Your task to perform on an android device: Search for a nice rug on Crate & Barrel Image 0: 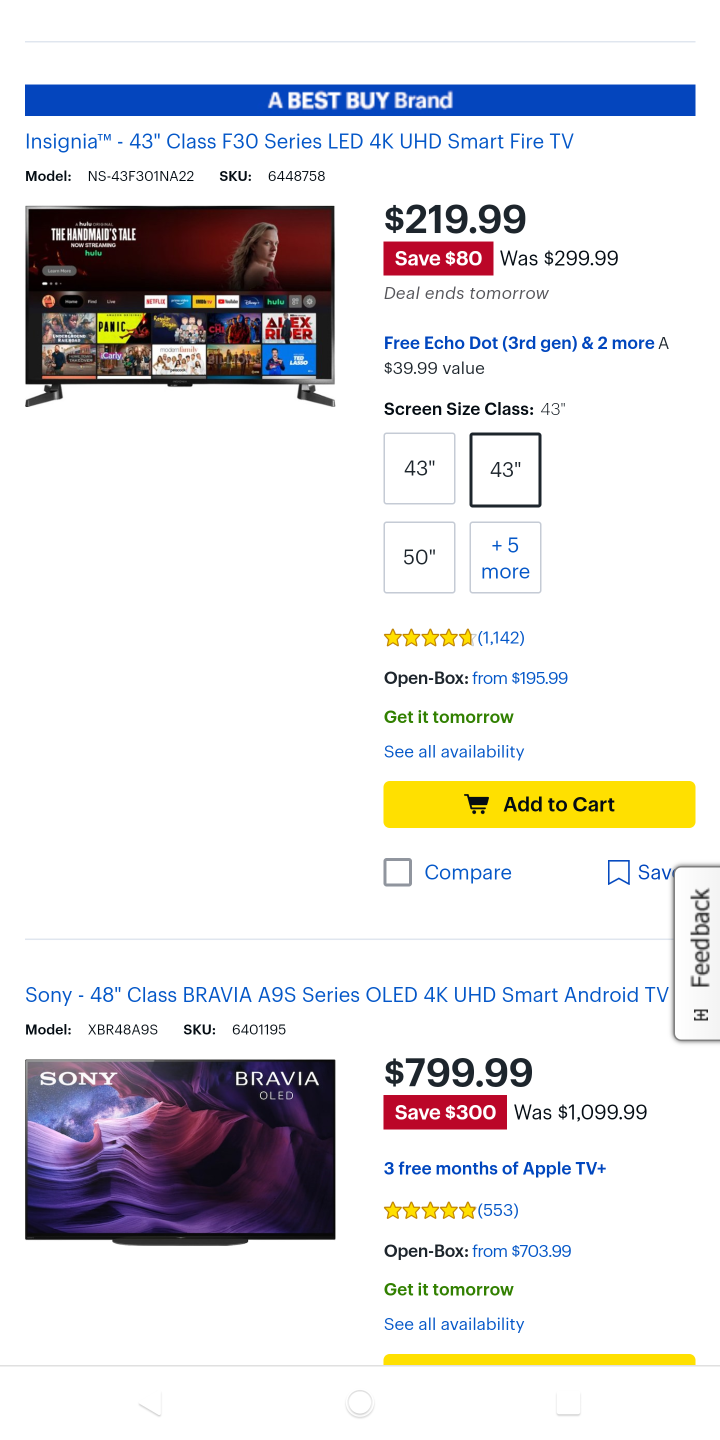
Step 0: press home button
Your task to perform on an android device: Search for a nice rug on Crate & Barrel Image 1: 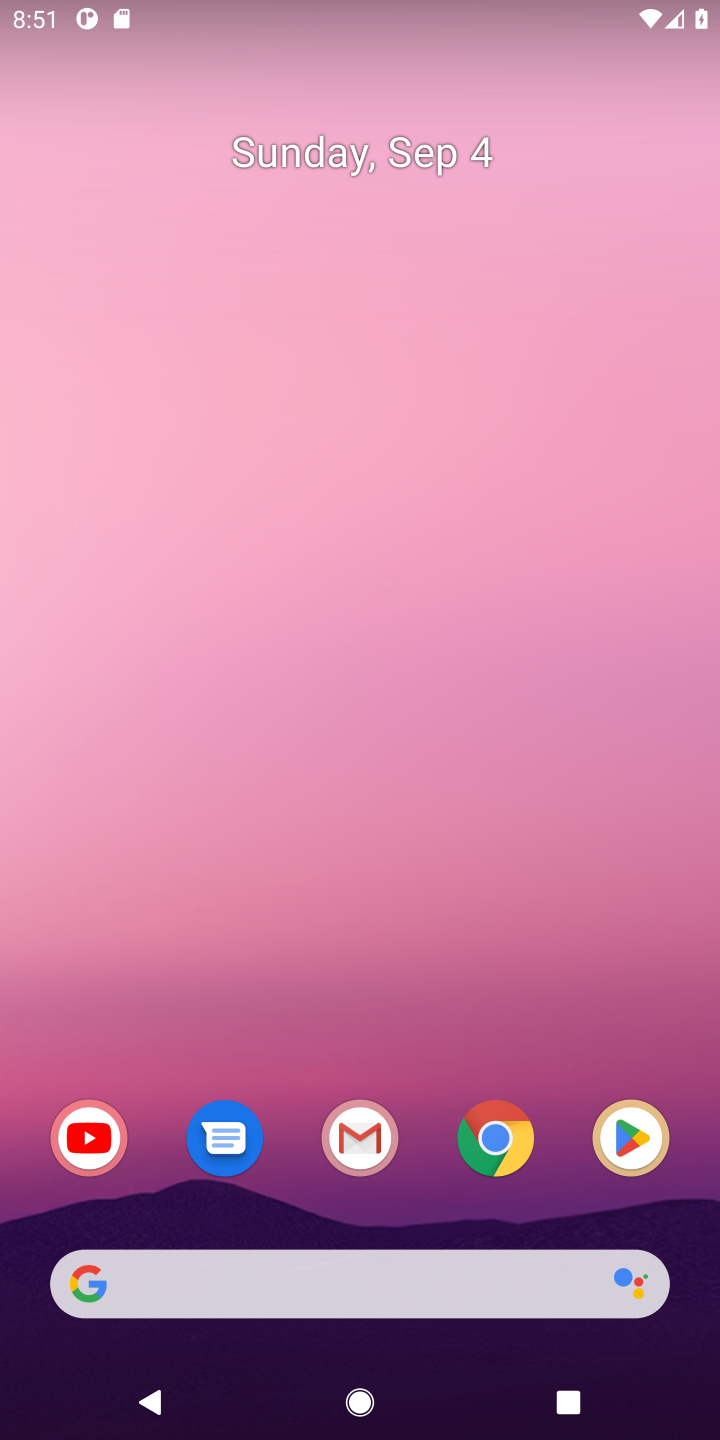
Step 1: click (558, 32)
Your task to perform on an android device: Search for a nice rug on Crate & Barrel Image 2: 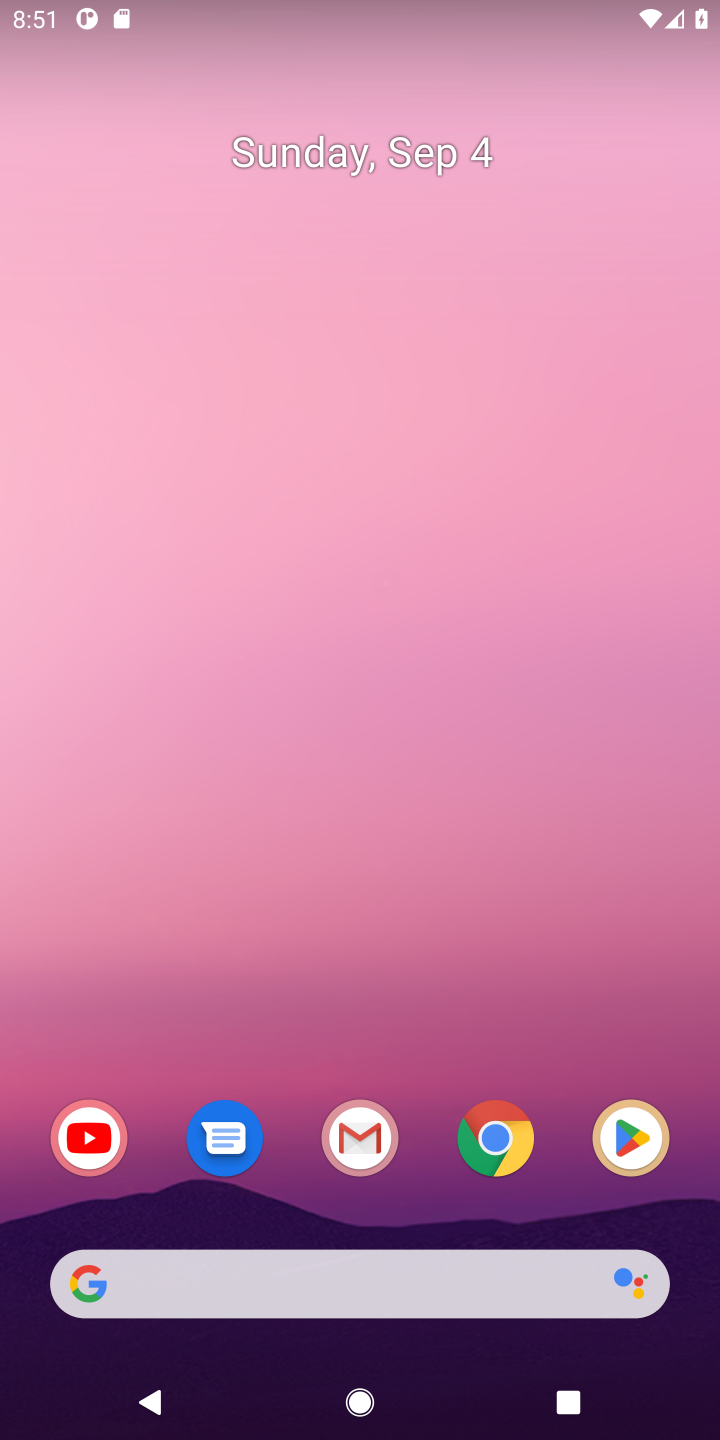
Step 2: drag from (444, 739) to (416, 85)
Your task to perform on an android device: Search for a nice rug on Crate & Barrel Image 3: 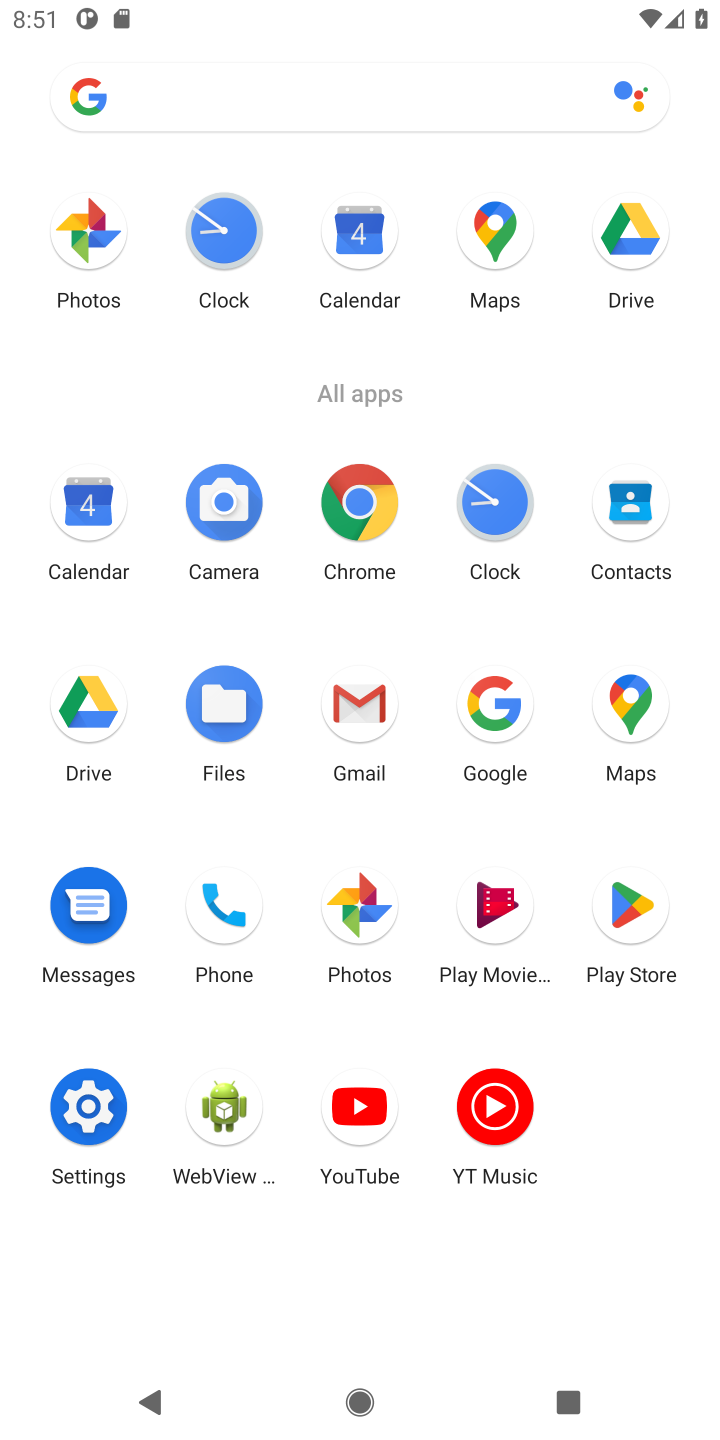
Step 3: click (354, 495)
Your task to perform on an android device: Search for a nice rug on Crate & Barrel Image 4: 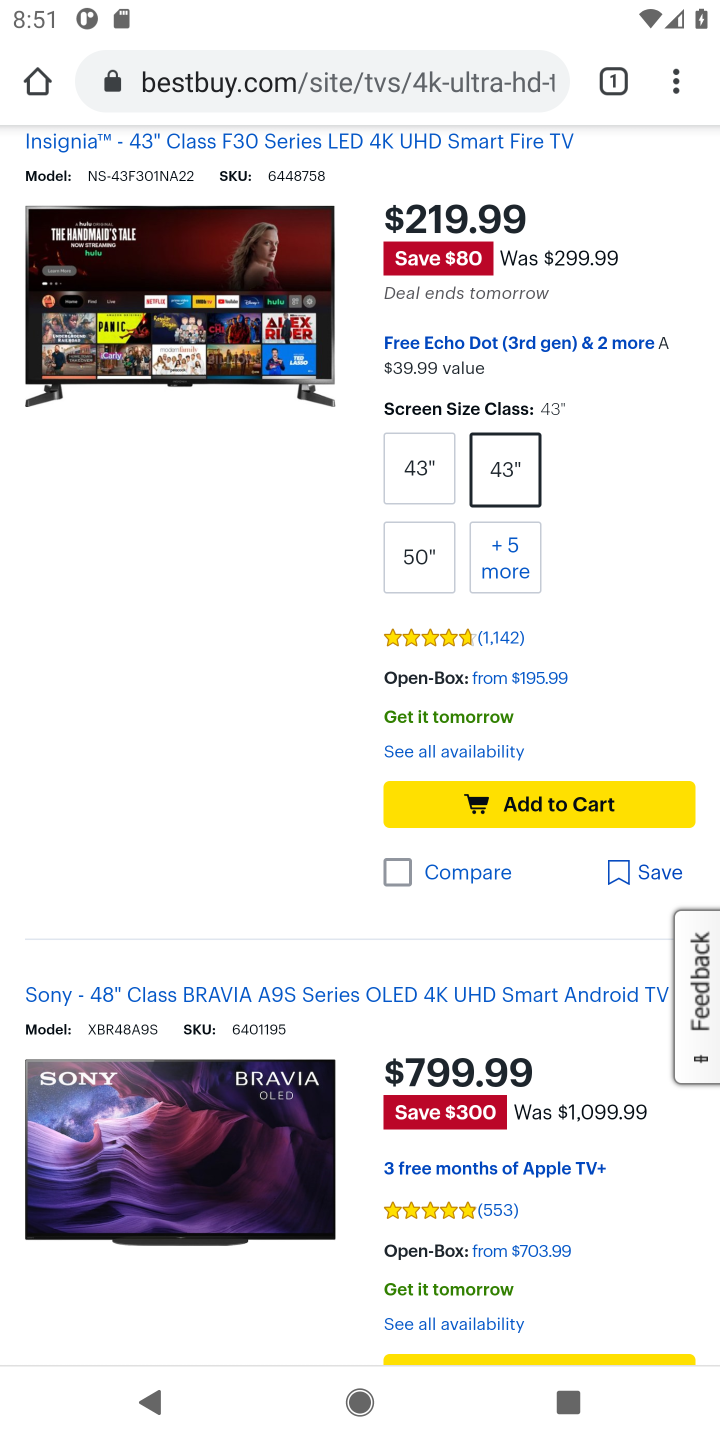
Step 4: click (614, 71)
Your task to perform on an android device: Search for a nice rug on Crate & Barrel Image 5: 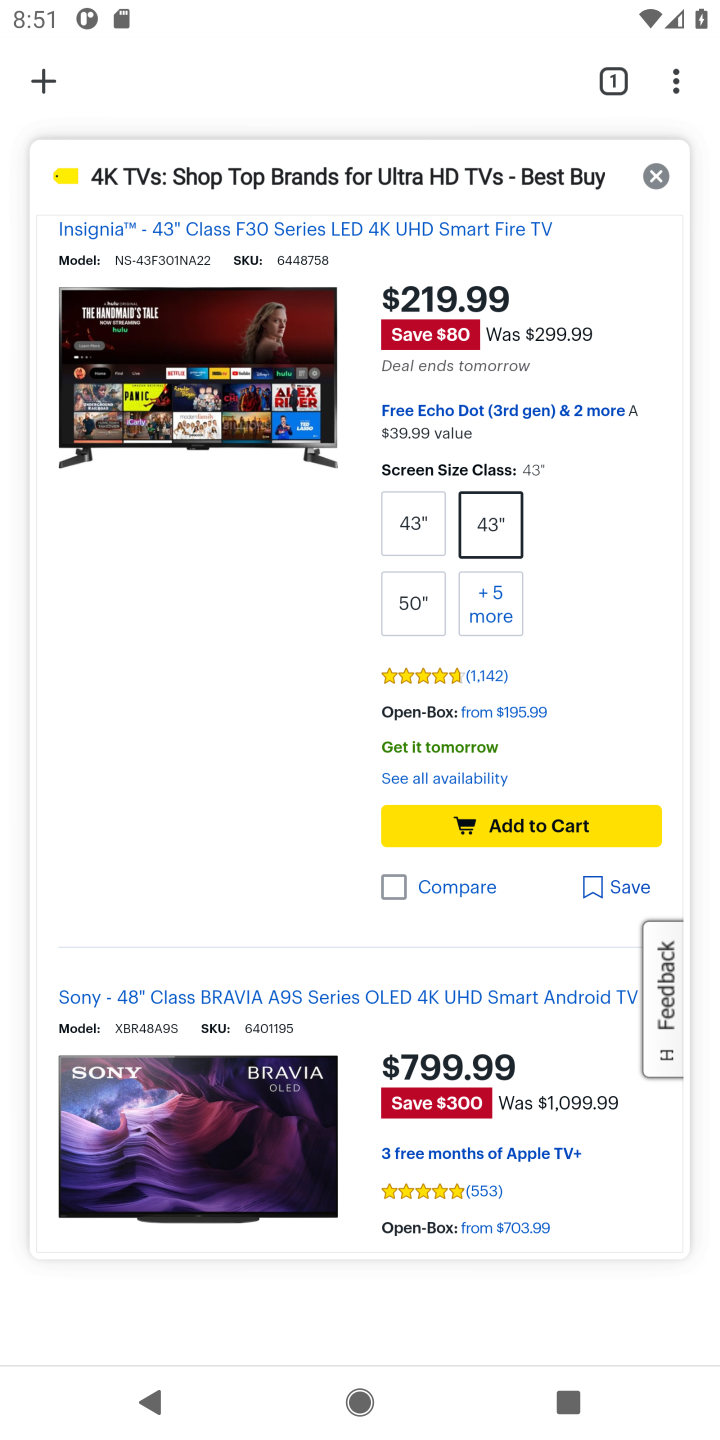
Step 5: click (70, 77)
Your task to perform on an android device: Search for a nice rug on Crate & Barrel Image 6: 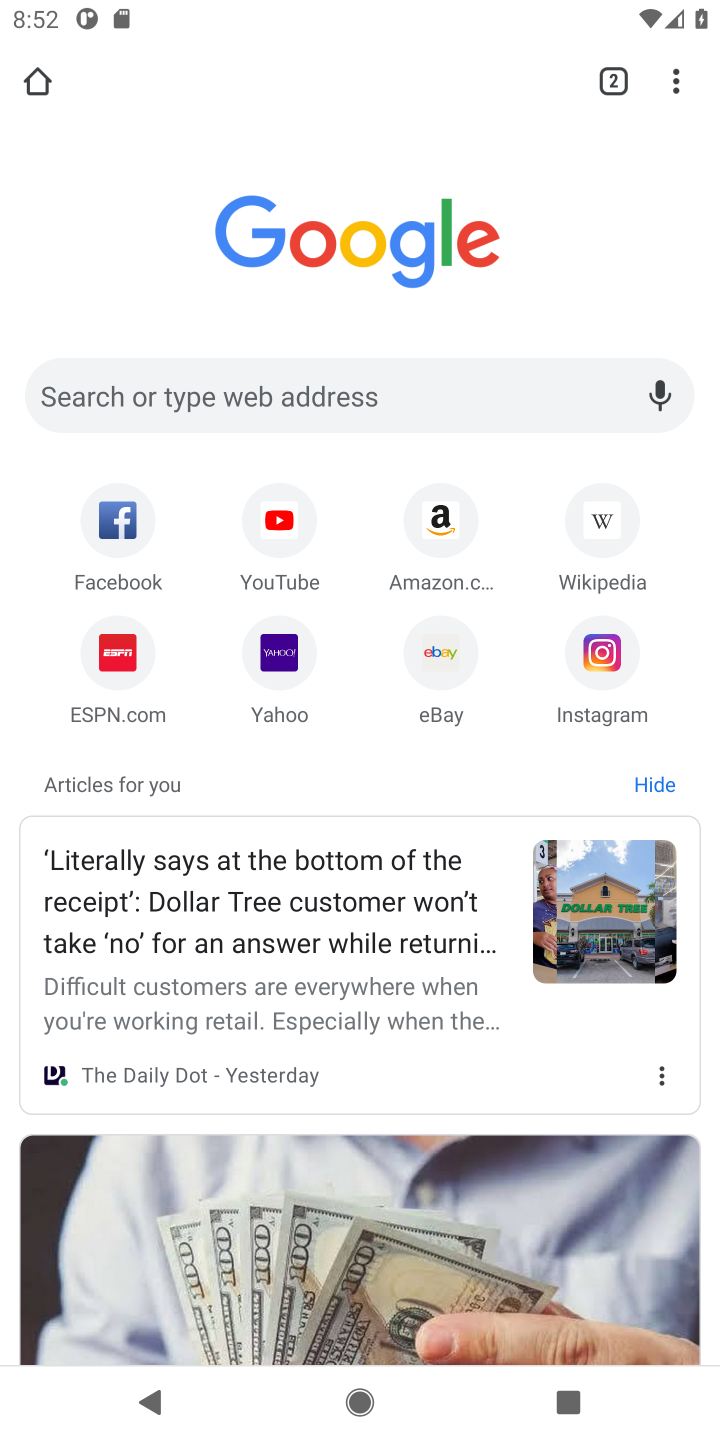
Step 6: click (278, 386)
Your task to perform on an android device: Search for a nice rug on Crate & Barrel Image 7: 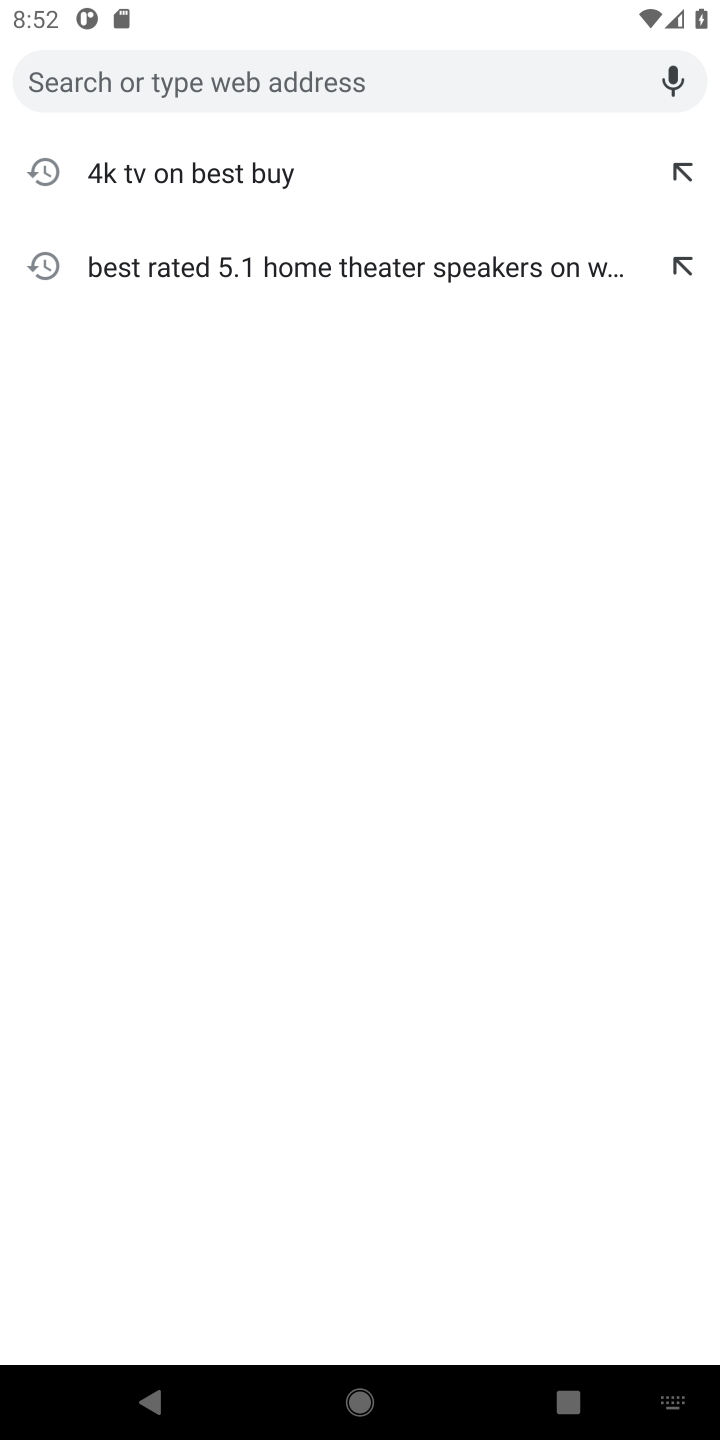
Step 7: type "a nice rug on Crate & Barrel"
Your task to perform on an android device: Search for a nice rug on Crate & Barrel Image 8: 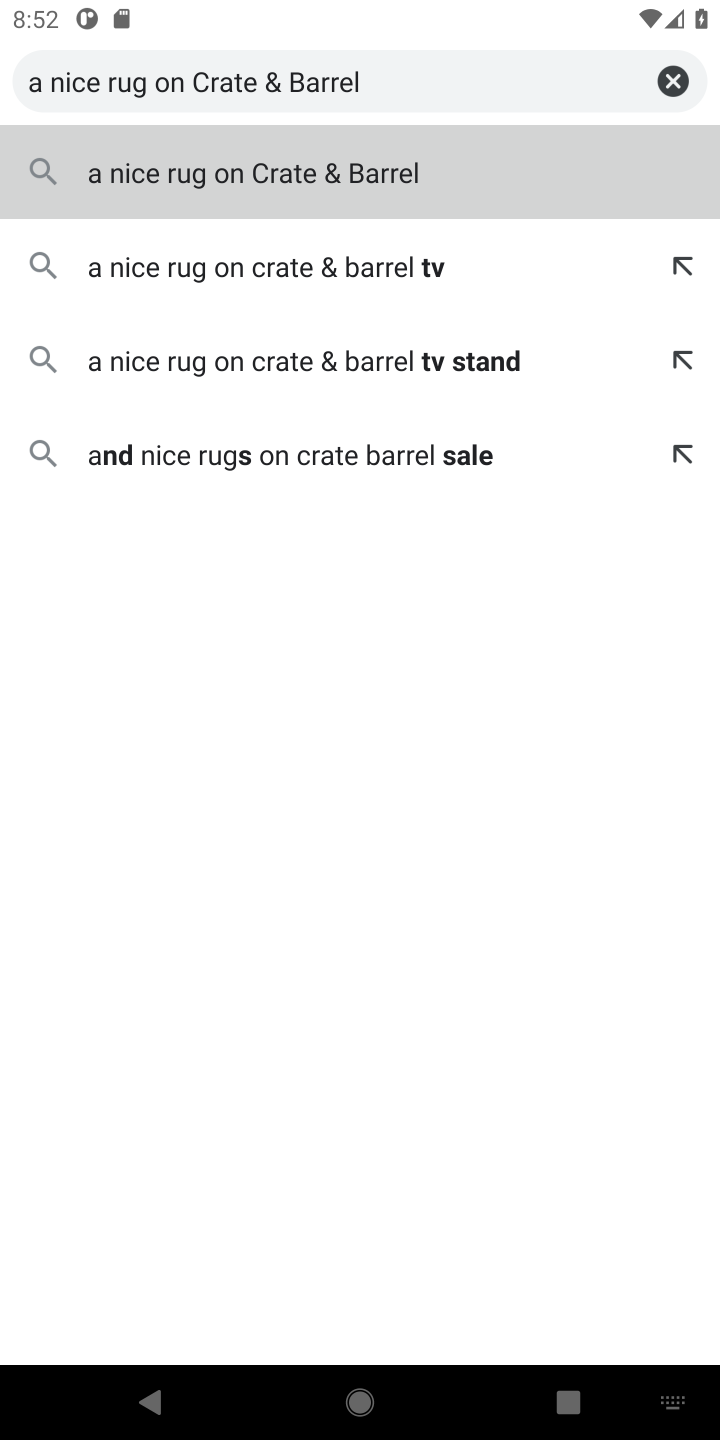
Step 8: click (306, 178)
Your task to perform on an android device: Search for a nice rug on Crate & Barrel Image 9: 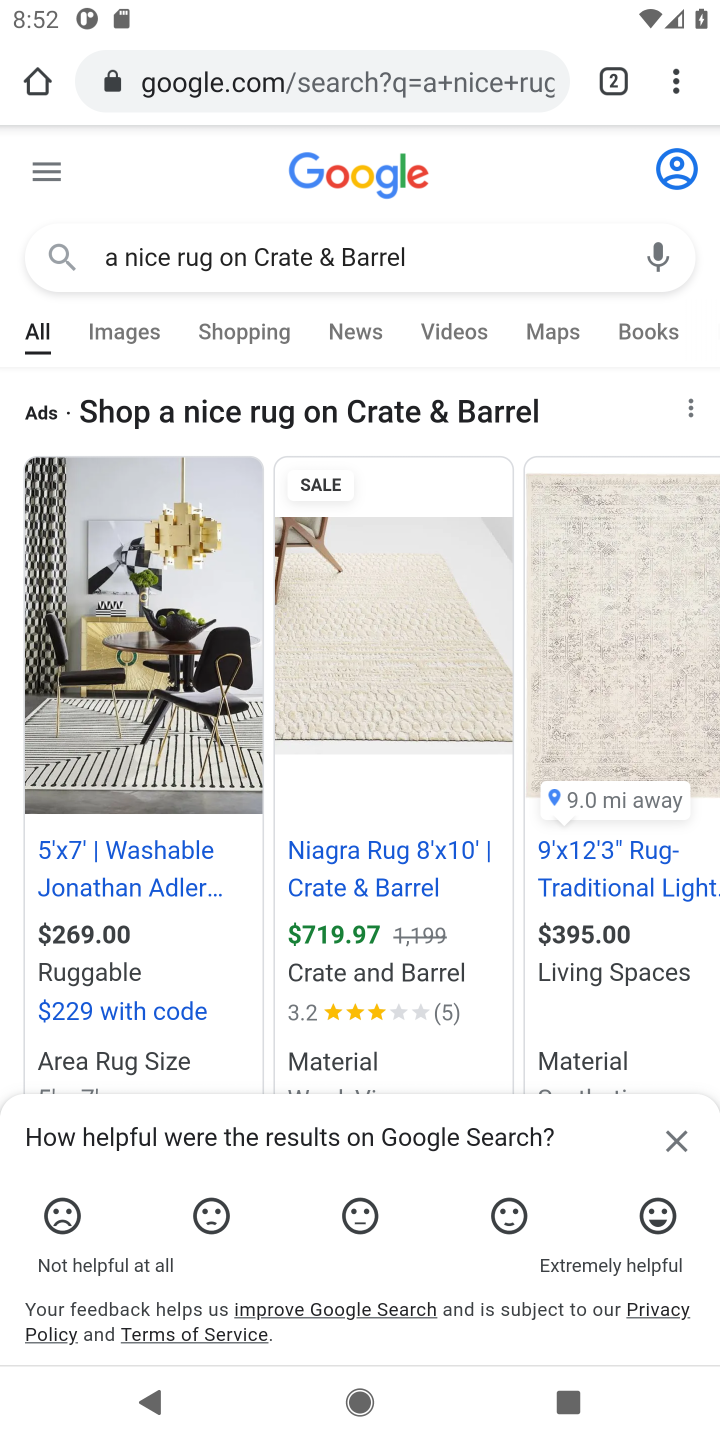
Step 9: drag from (421, 1280) to (587, 920)
Your task to perform on an android device: Search for a nice rug on Crate & Barrel Image 10: 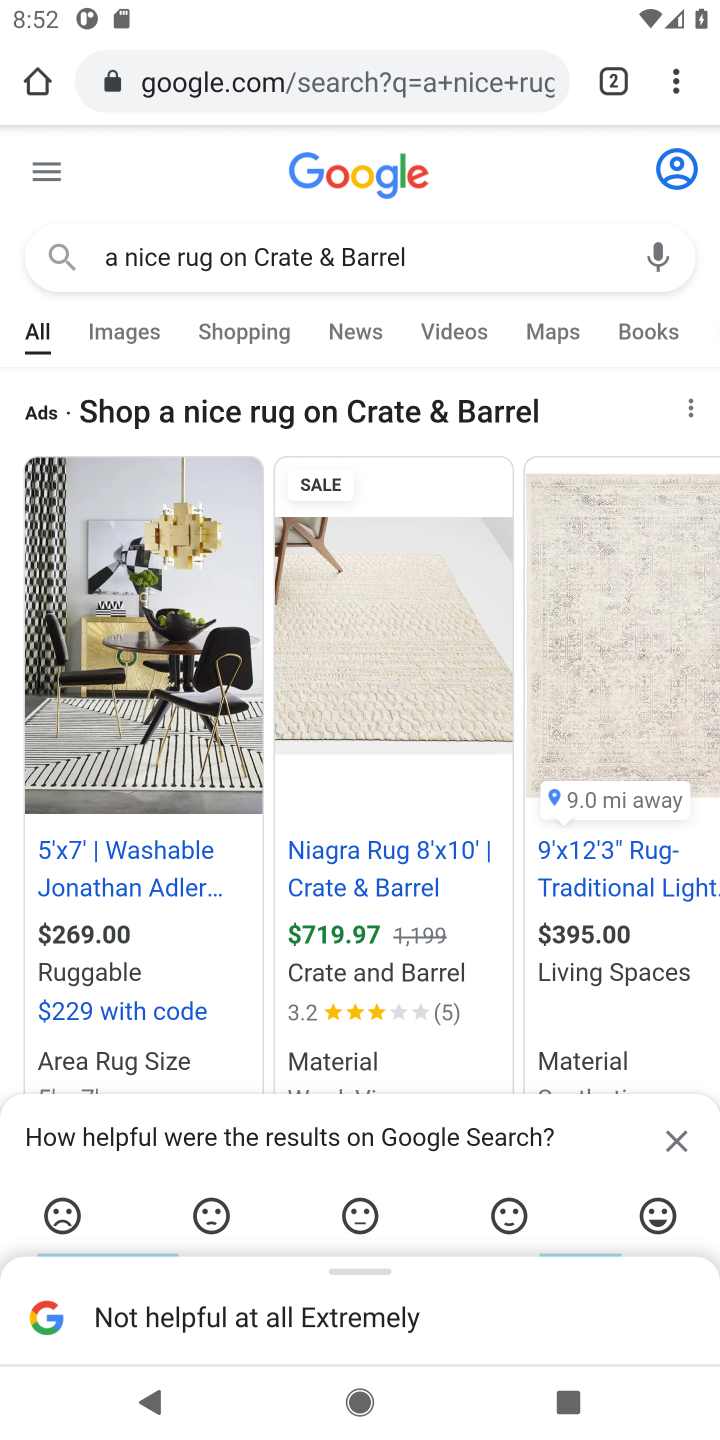
Step 10: click (683, 1135)
Your task to perform on an android device: Search for a nice rug on Crate & Barrel Image 11: 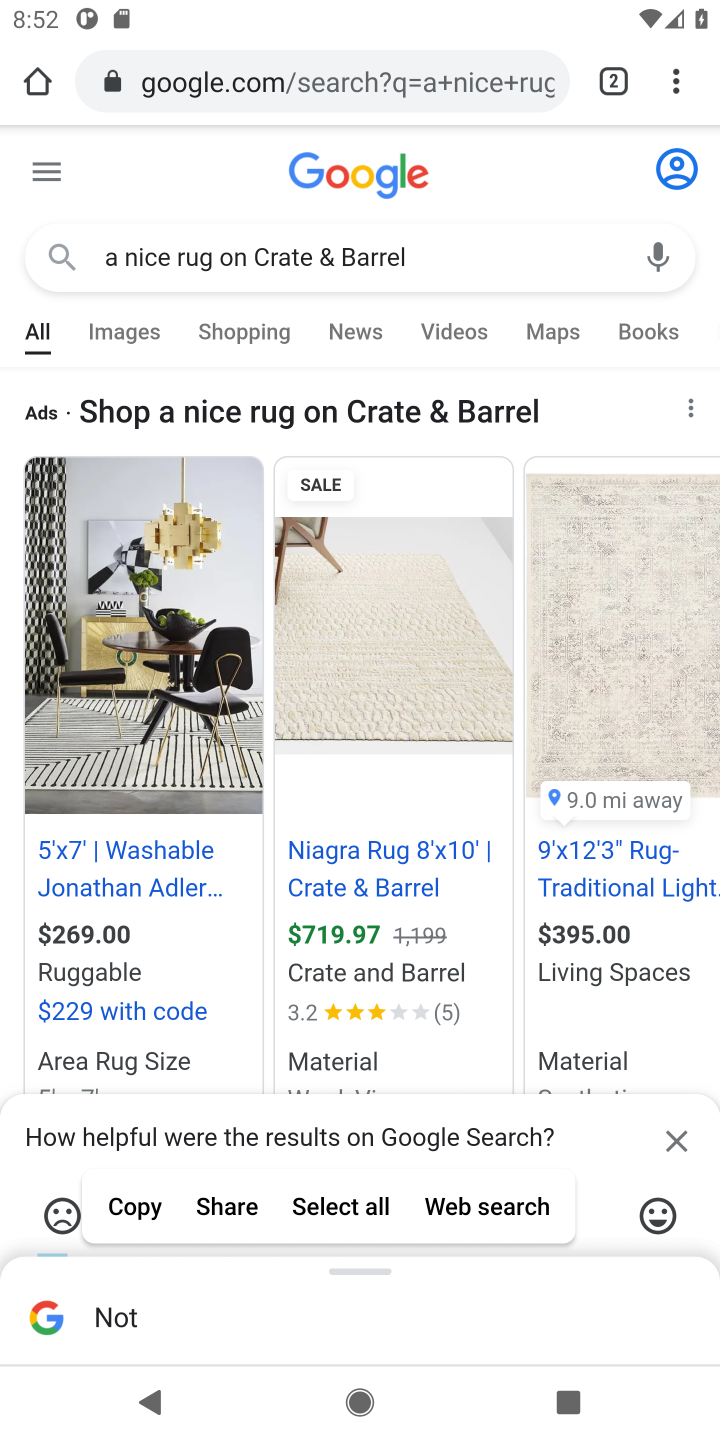
Step 11: click (674, 1141)
Your task to perform on an android device: Search for a nice rug on Crate & Barrel Image 12: 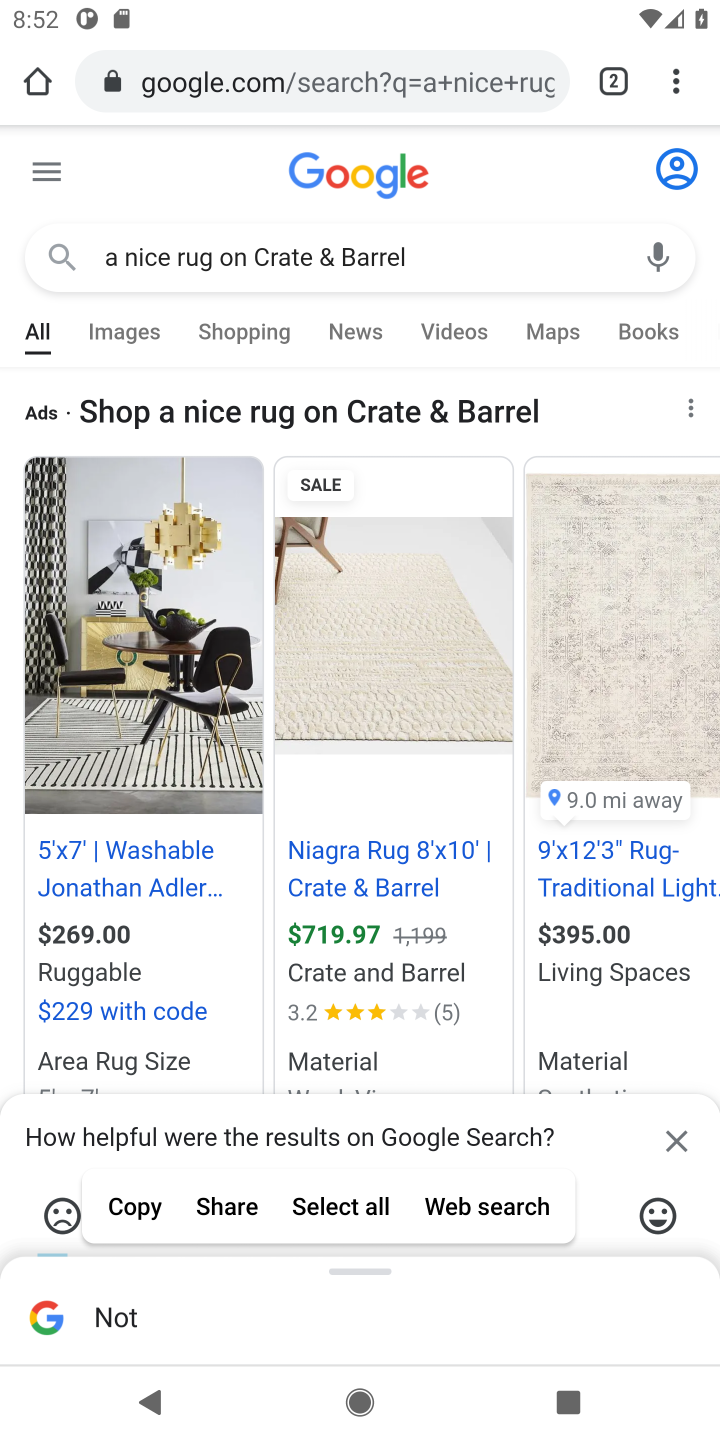
Step 12: drag from (262, 1052) to (284, 381)
Your task to perform on an android device: Search for a nice rug on Crate & Barrel Image 13: 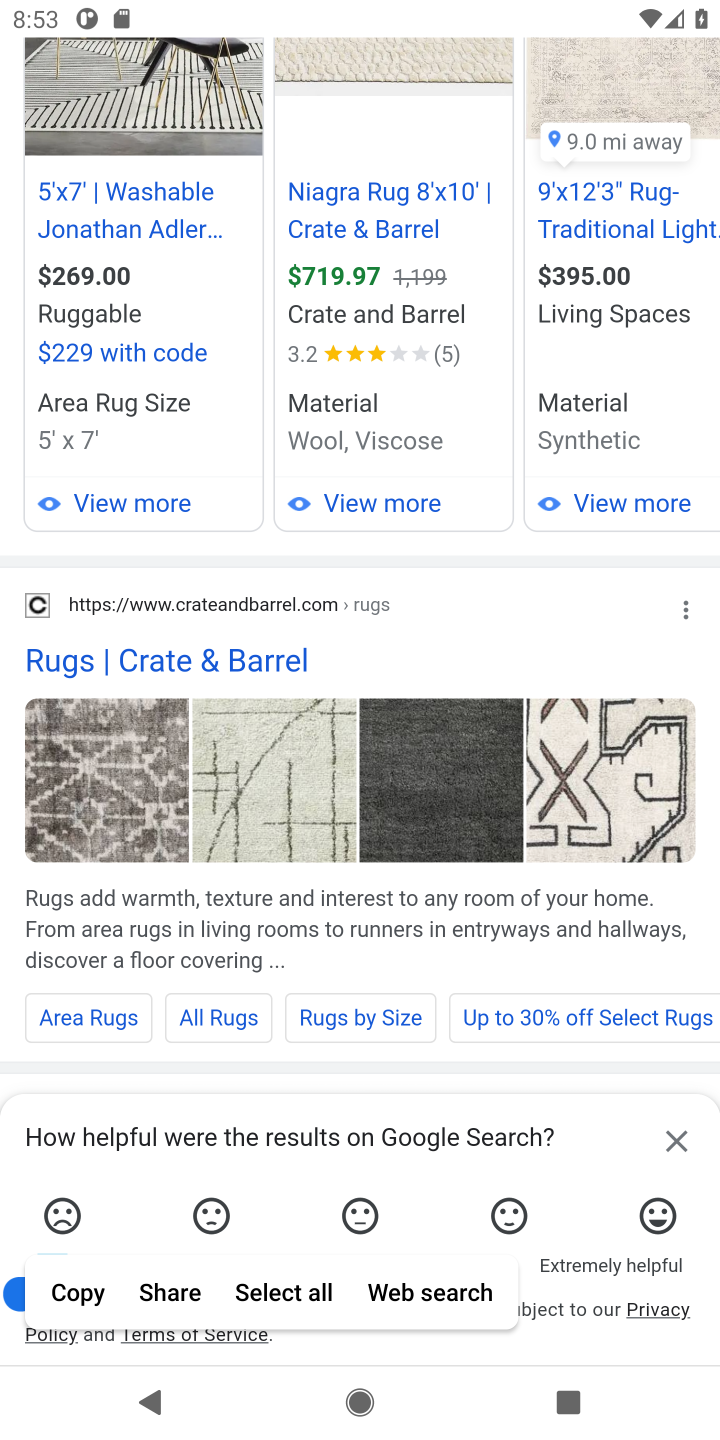
Step 13: drag from (377, 902) to (379, 463)
Your task to perform on an android device: Search for a nice rug on Crate & Barrel Image 14: 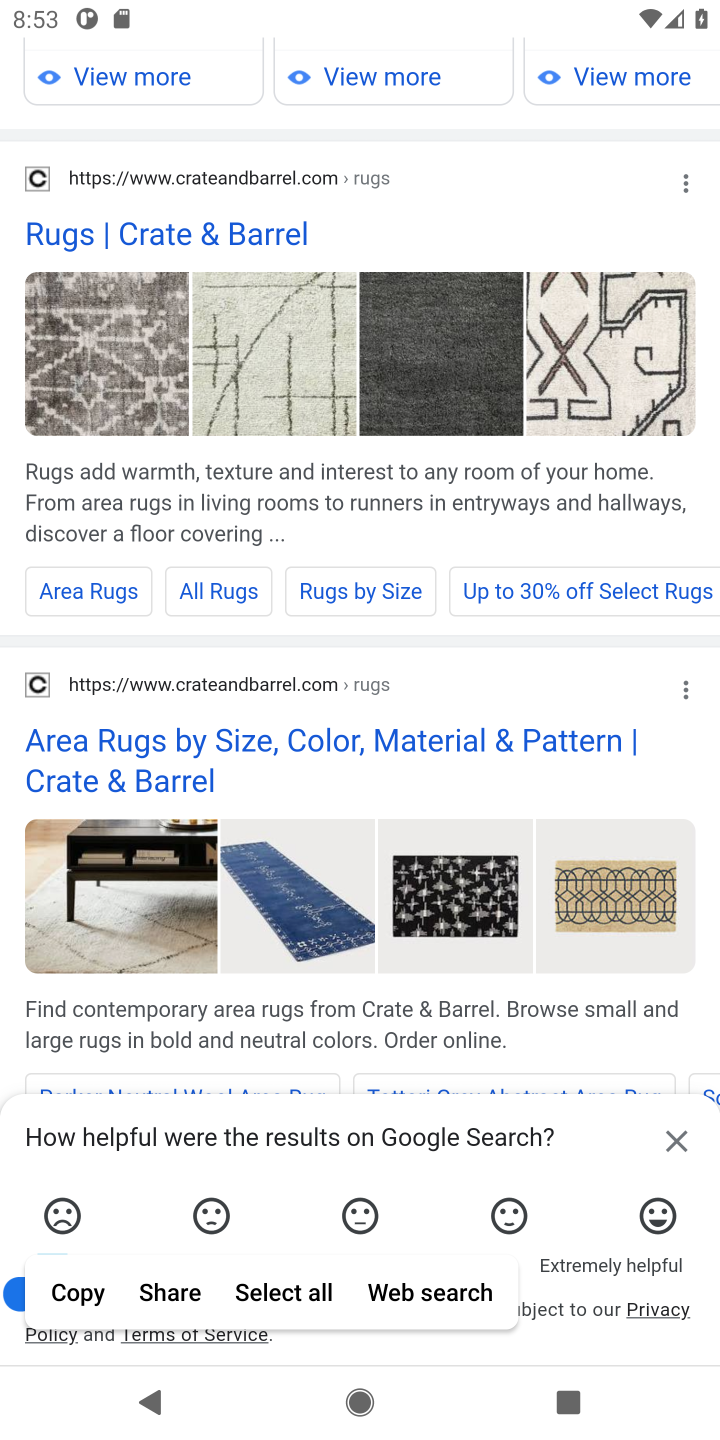
Step 14: click (200, 754)
Your task to perform on an android device: Search for a nice rug on Crate & Barrel Image 15: 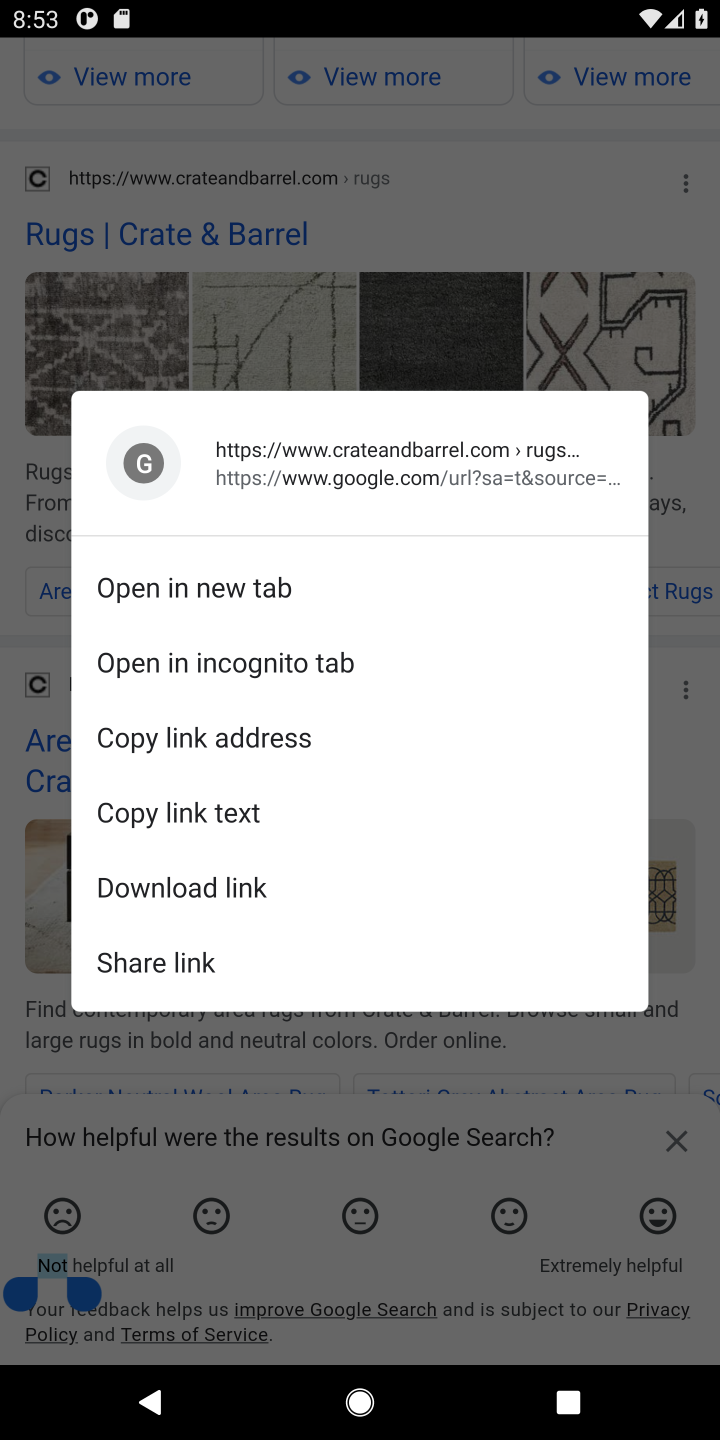
Step 15: click (286, 1113)
Your task to perform on an android device: Search for a nice rug on Crate & Barrel Image 16: 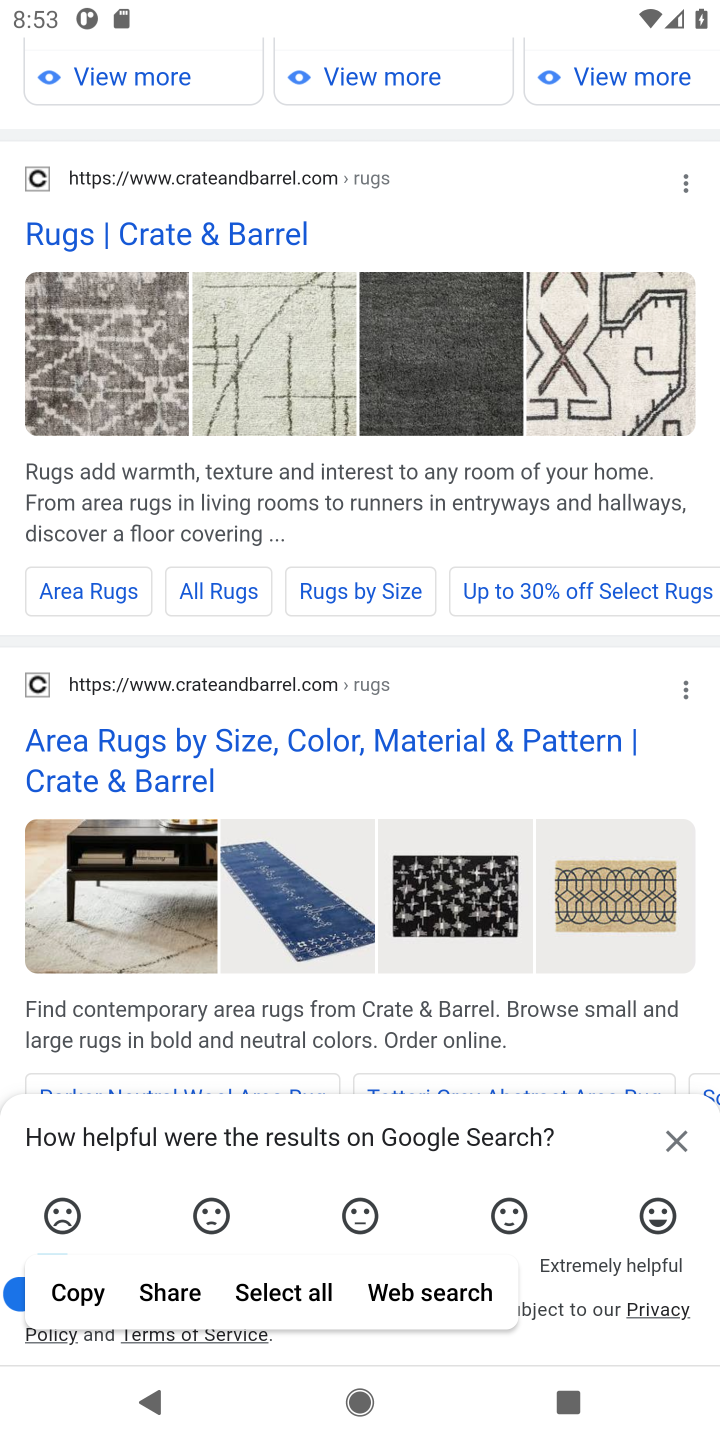
Step 16: click (150, 739)
Your task to perform on an android device: Search for a nice rug on Crate & Barrel Image 17: 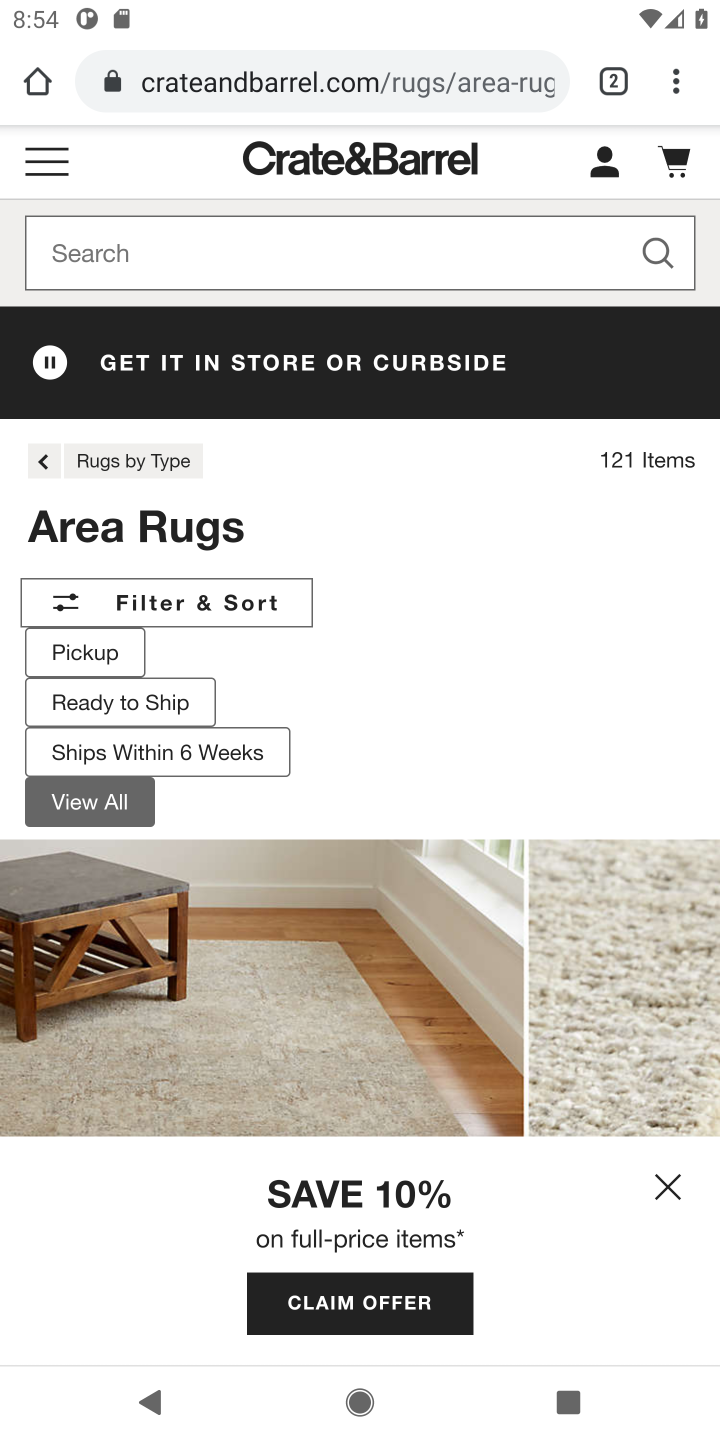
Step 17: drag from (314, 1045) to (334, 305)
Your task to perform on an android device: Search for a nice rug on Crate & Barrel Image 18: 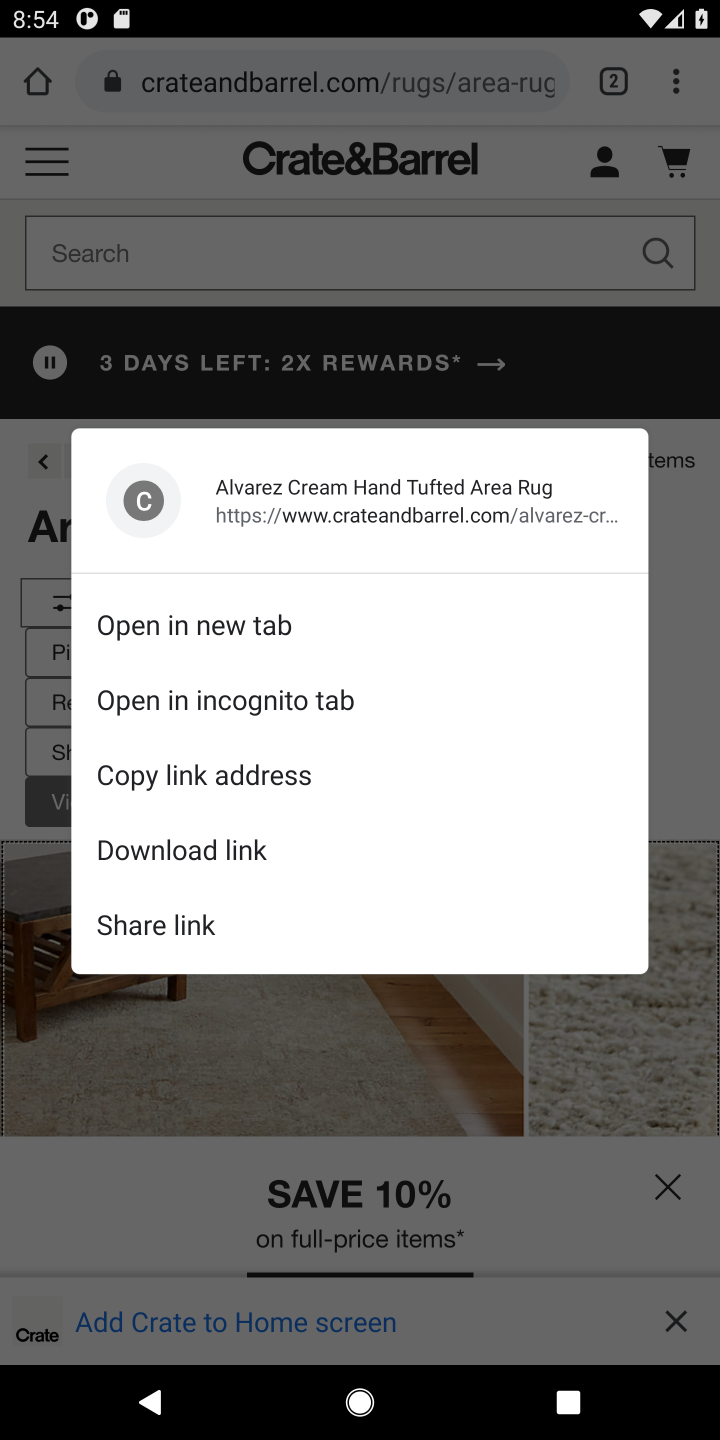
Step 18: click (330, 1053)
Your task to perform on an android device: Search for a nice rug on Crate & Barrel Image 19: 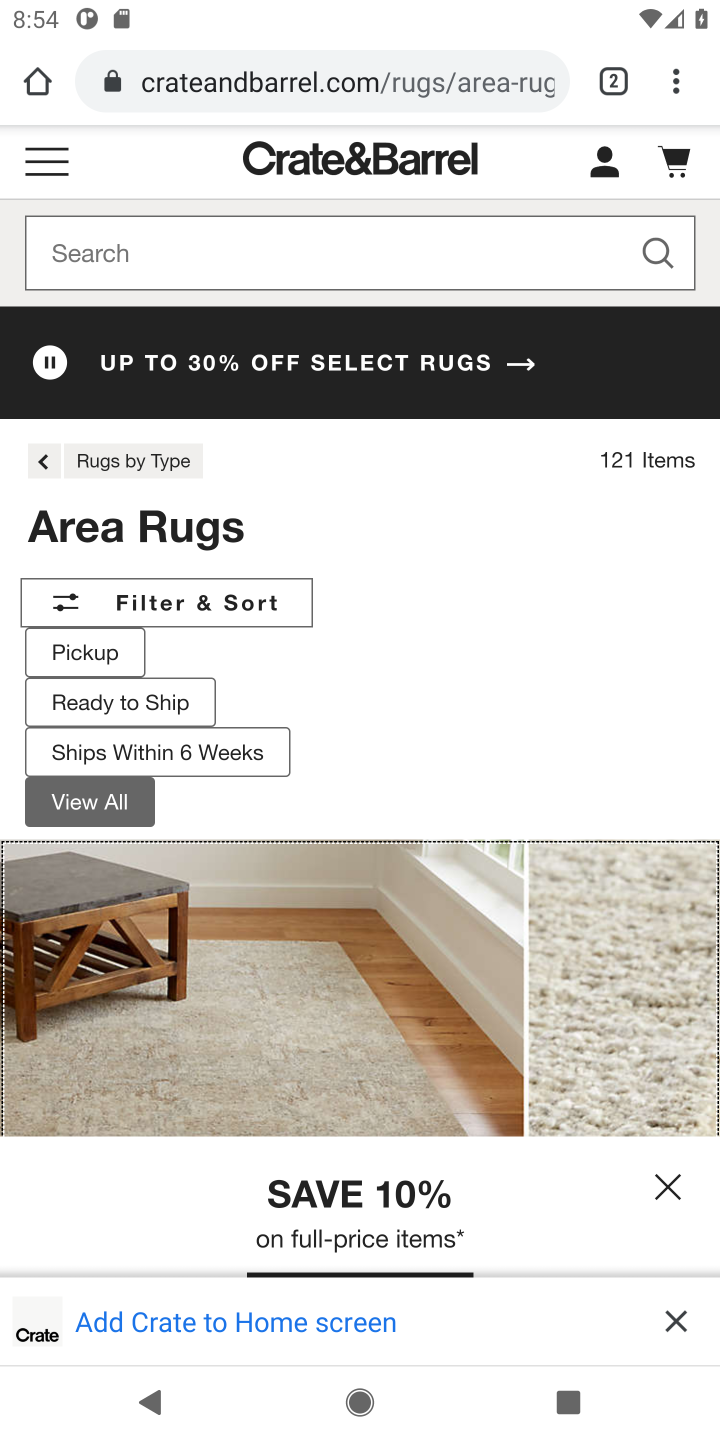
Step 19: drag from (529, 813) to (559, 141)
Your task to perform on an android device: Search for a nice rug on Crate & Barrel Image 20: 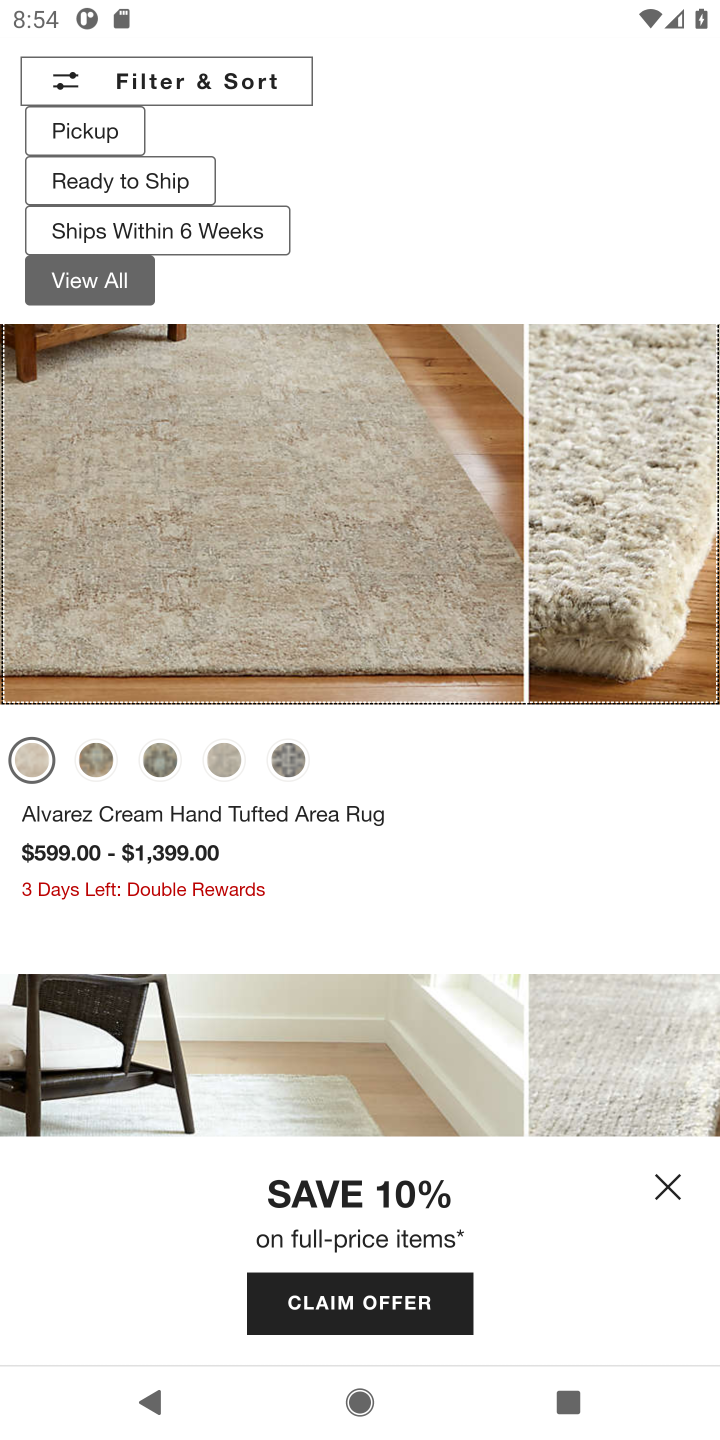
Step 20: drag from (426, 957) to (495, 245)
Your task to perform on an android device: Search for a nice rug on Crate & Barrel Image 21: 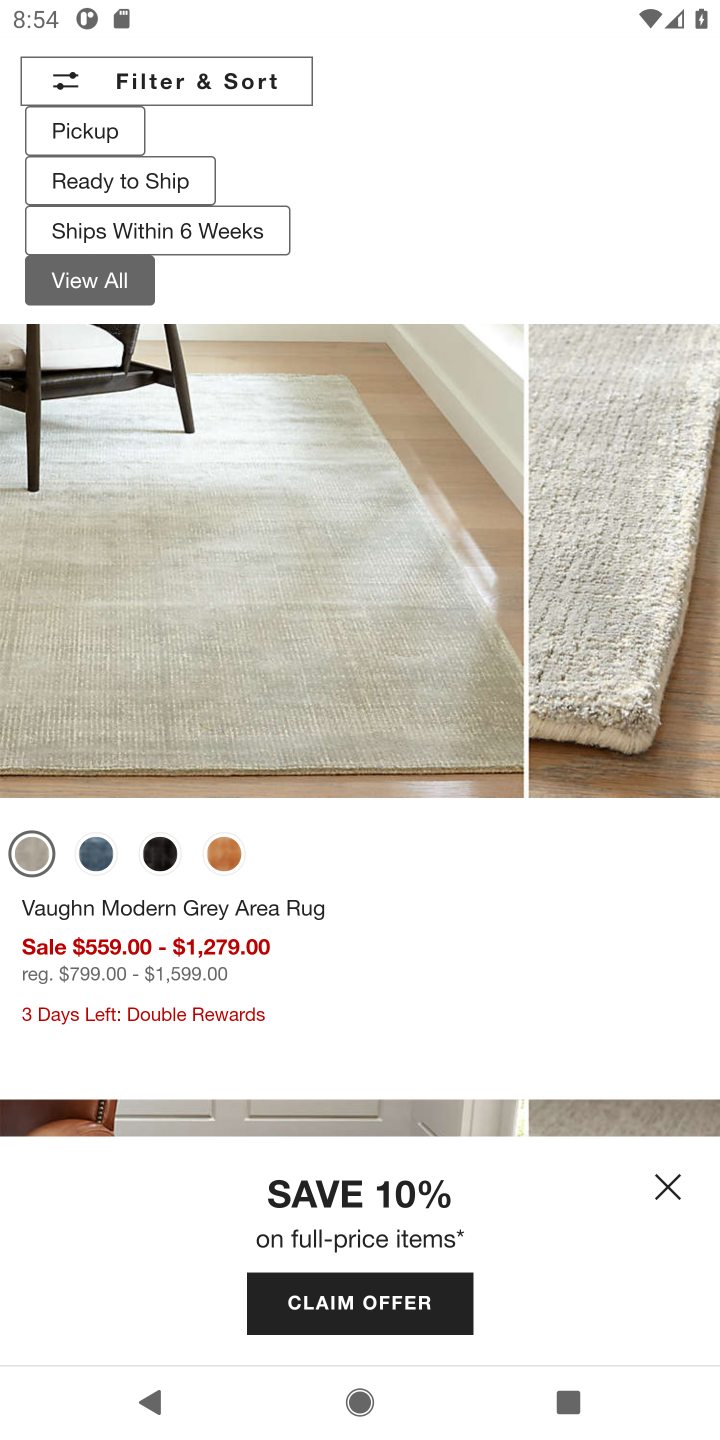
Step 21: drag from (652, 656) to (0, 712)
Your task to perform on an android device: Search for a nice rug on Crate & Barrel Image 22: 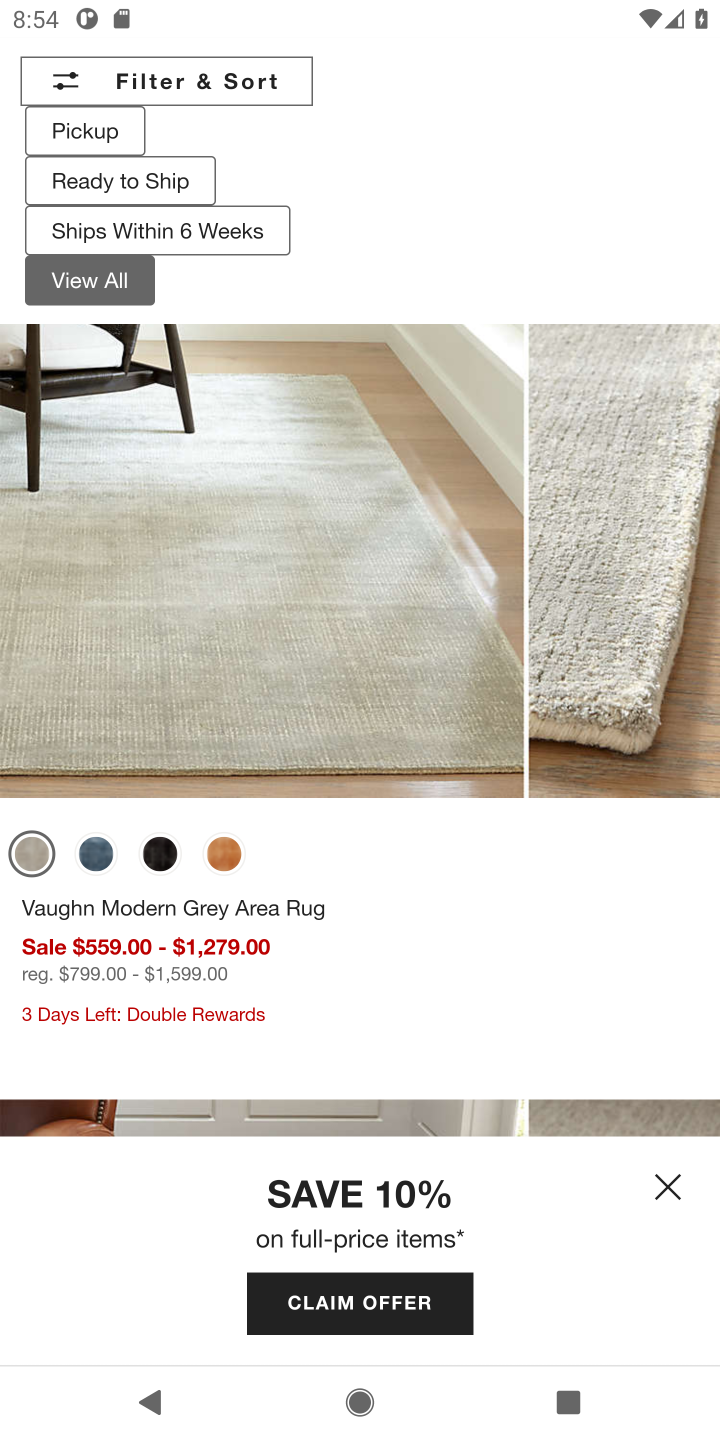
Step 22: drag from (428, 734) to (0, 740)
Your task to perform on an android device: Search for a nice rug on Crate & Barrel Image 23: 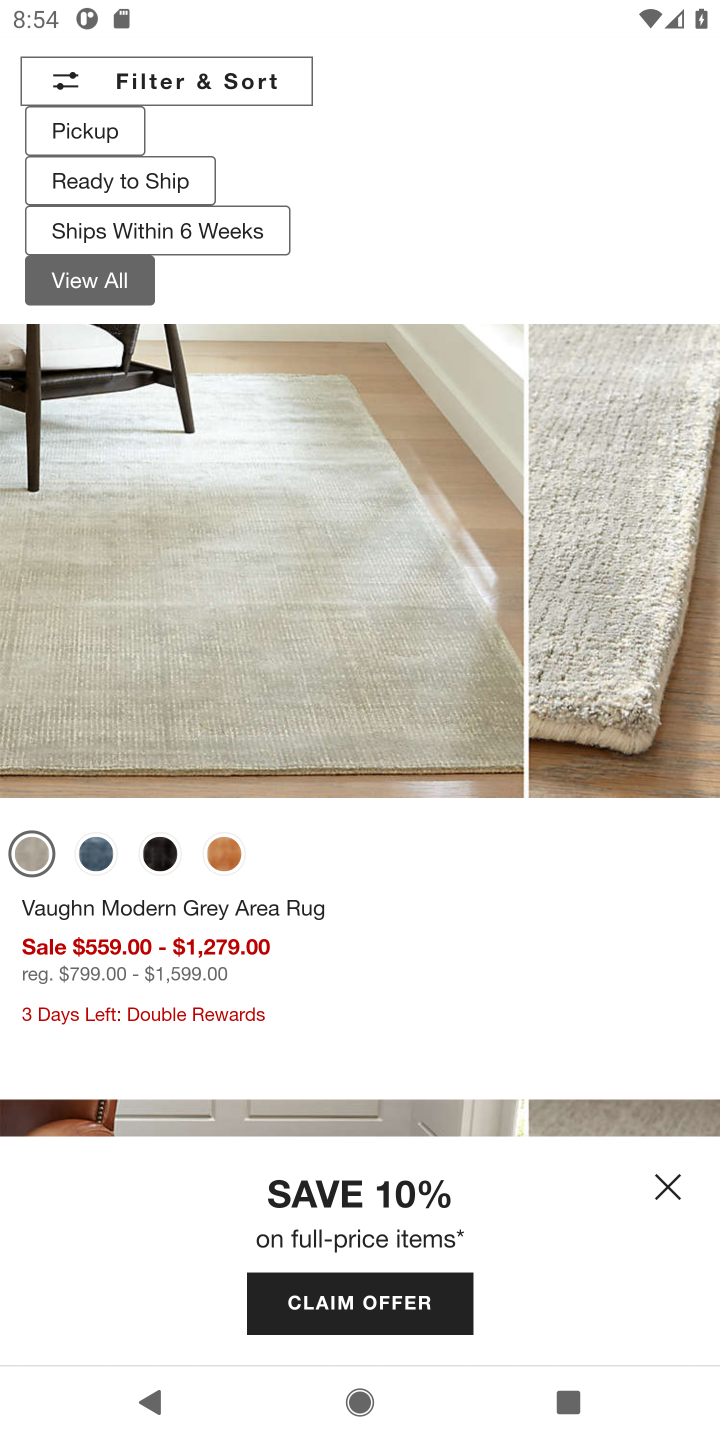
Step 23: click (665, 1184)
Your task to perform on an android device: Search for a nice rug on Crate & Barrel Image 24: 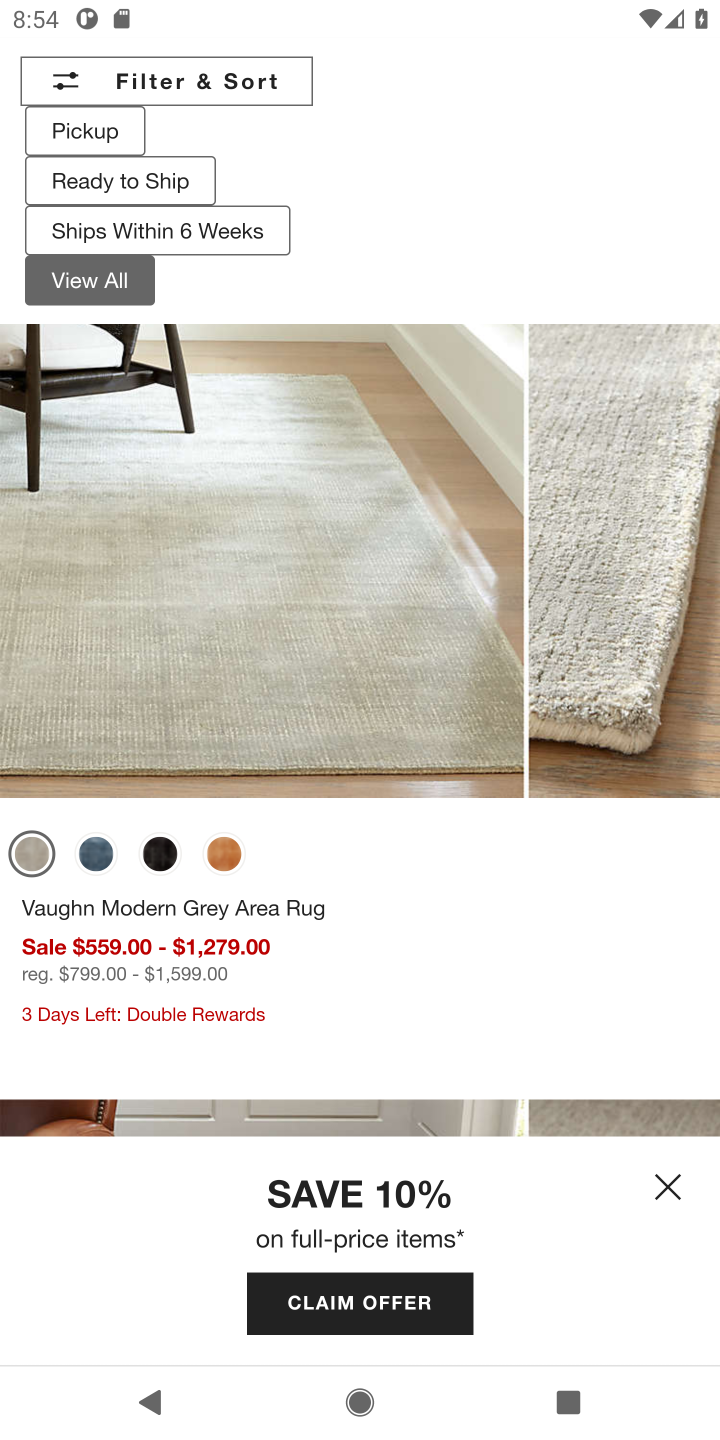
Step 24: task complete